Your task to perform on an android device: turn on the 24-hour format for clock Image 0: 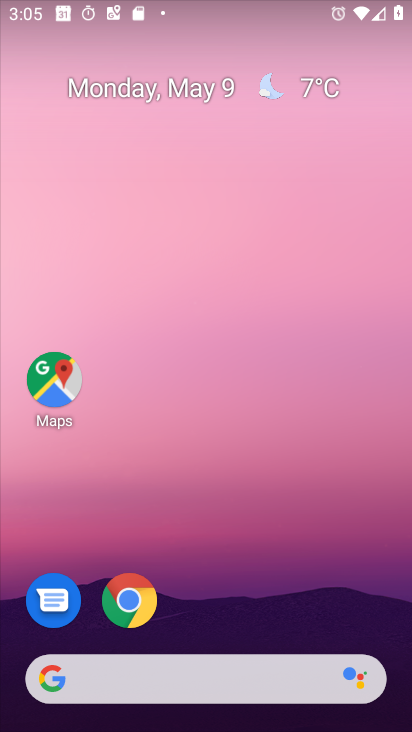
Step 0: drag from (204, 661) to (179, 333)
Your task to perform on an android device: turn on the 24-hour format for clock Image 1: 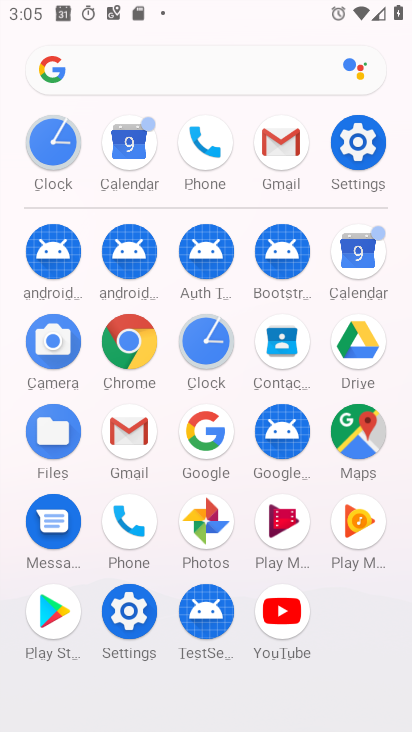
Step 1: click (355, 119)
Your task to perform on an android device: turn on the 24-hour format for clock Image 2: 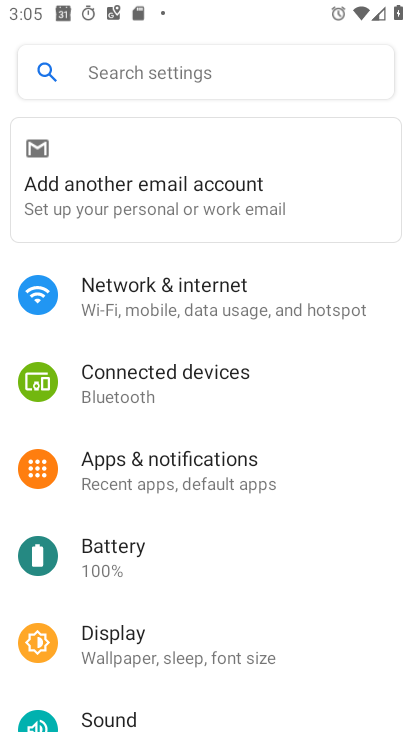
Step 2: drag from (230, 622) to (177, 9)
Your task to perform on an android device: turn on the 24-hour format for clock Image 3: 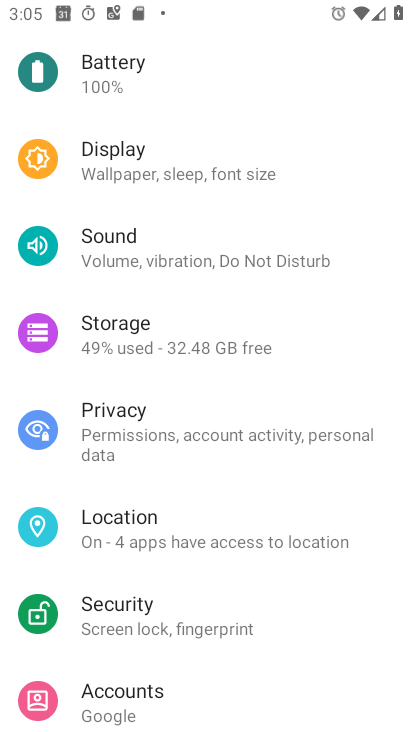
Step 3: drag from (267, 620) to (227, 27)
Your task to perform on an android device: turn on the 24-hour format for clock Image 4: 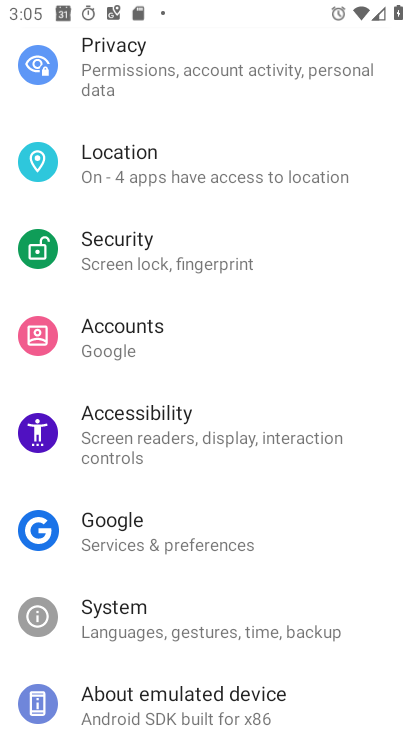
Step 4: click (193, 618)
Your task to perform on an android device: turn on the 24-hour format for clock Image 5: 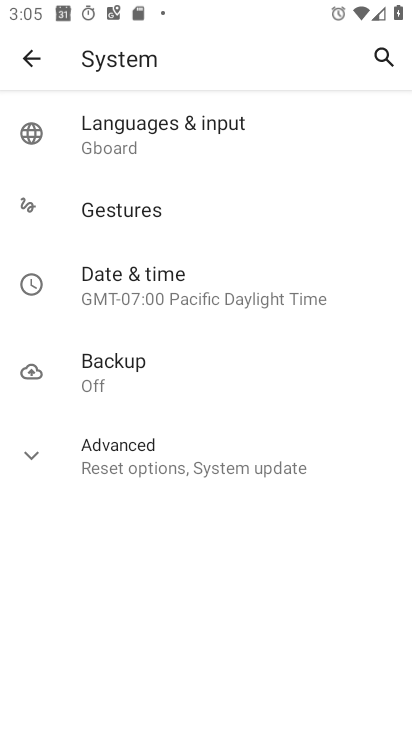
Step 5: click (198, 305)
Your task to perform on an android device: turn on the 24-hour format for clock Image 6: 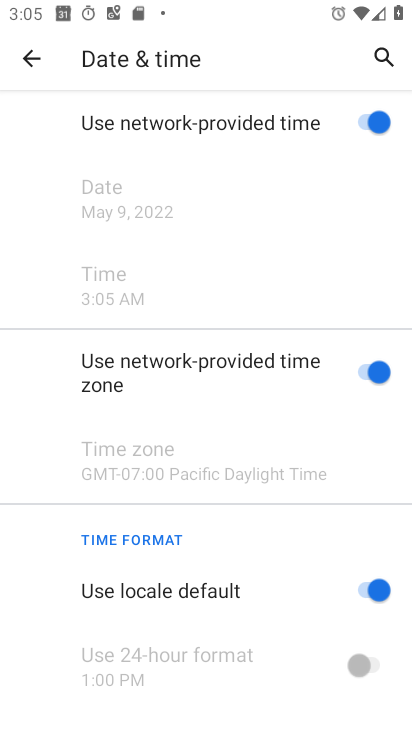
Step 6: click (362, 584)
Your task to perform on an android device: turn on the 24-hour format for clock Image 7: 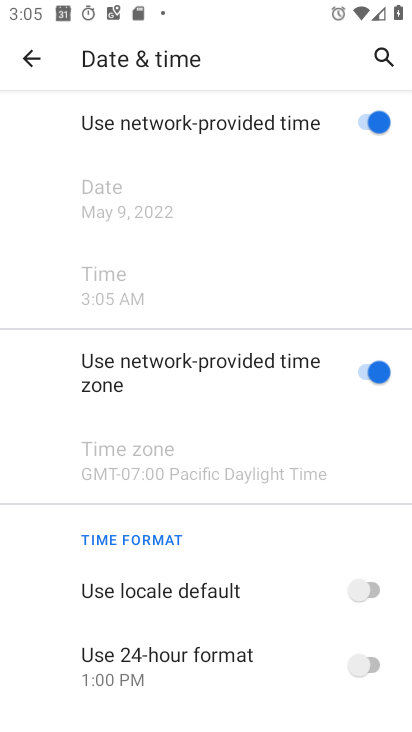
Step 7: click (367, 683)
Your task to perform on an android device: turn on the 24-hour format for clock Image 8: 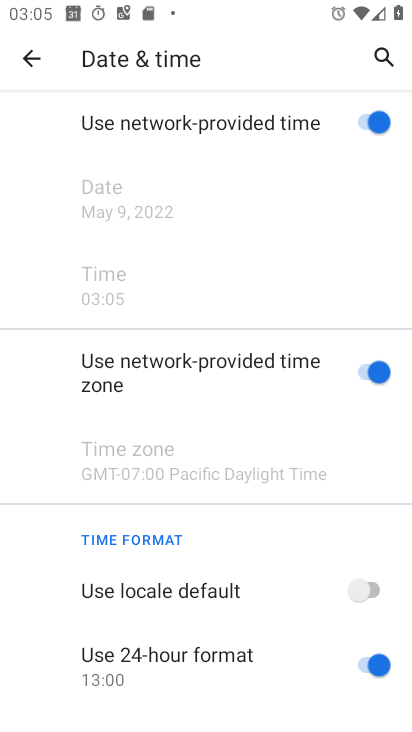
Step 8: task complete